Your task to perform on an android device: turn off translation in the chrome app Image 0: 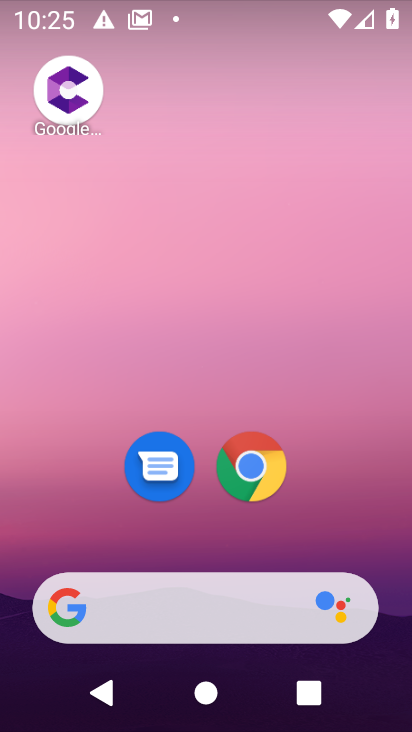
Step 0: drag from (317, 529) to (319, 73)
Your task to perform on an android device: turn off translation in the chrome app Image 1: 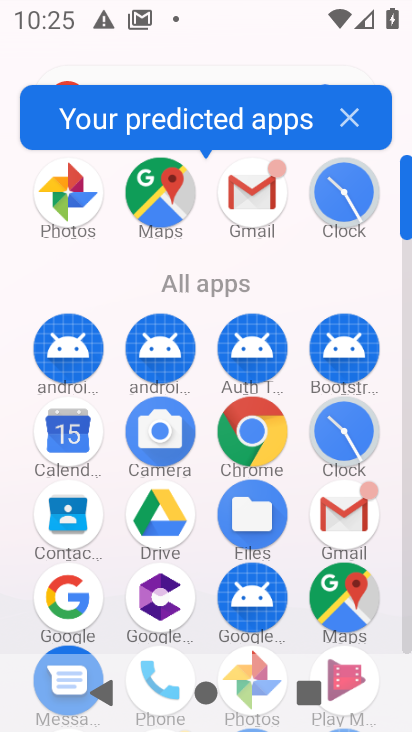
Step 1: click (254, 428)
Your task to perform on an android device: turn off translation in the chrome app Image 2: 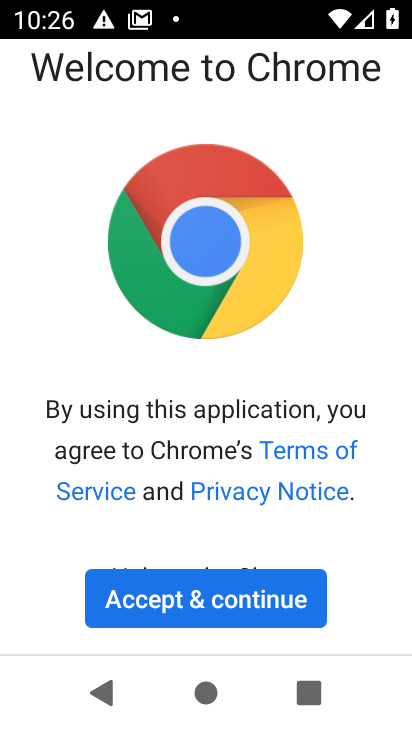
Step 2: click (263, 587)
Your task to perform on an android device: turn off translation in the chrome app Image 3: 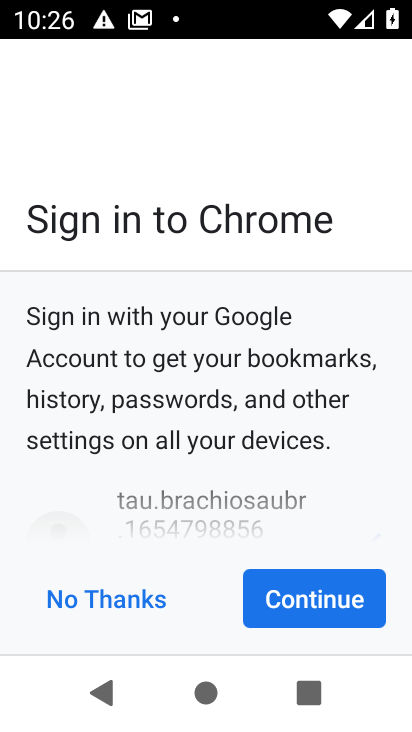
Step 3: click (318, 599)
Your task to perform on an android device: turn off translation in the chrome app Image 4: 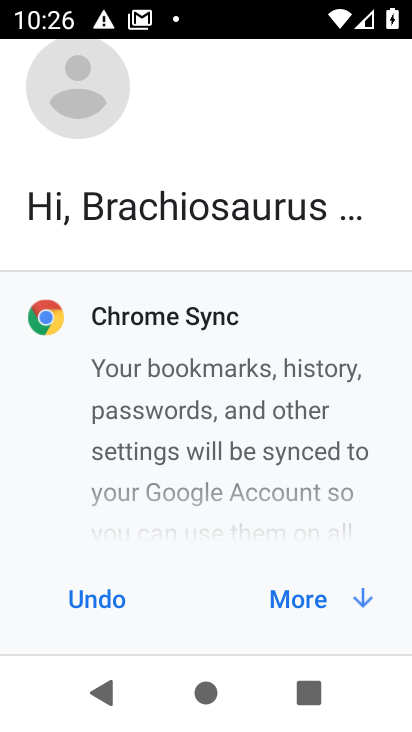
Step 4: click (307, 602)
Your task to perform on an android device: turn off translation in the chrome app Image 5: 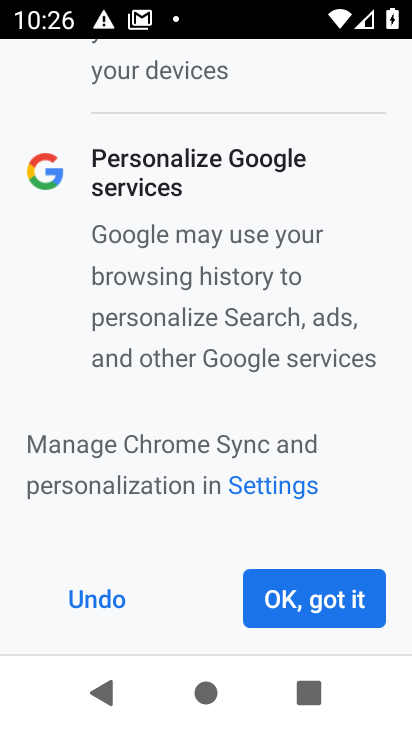
Step 5: click (367, 590)
Your task to perform on an android device: turn off translation in the chrome app Image 6: 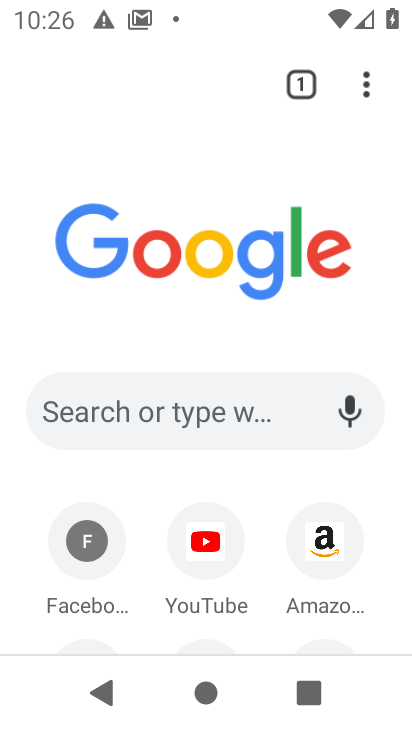
Step 6: drag from (358, 86) to (125, 512)
Your task to perform on an android device: turn off translation in the chrome app Image 7: 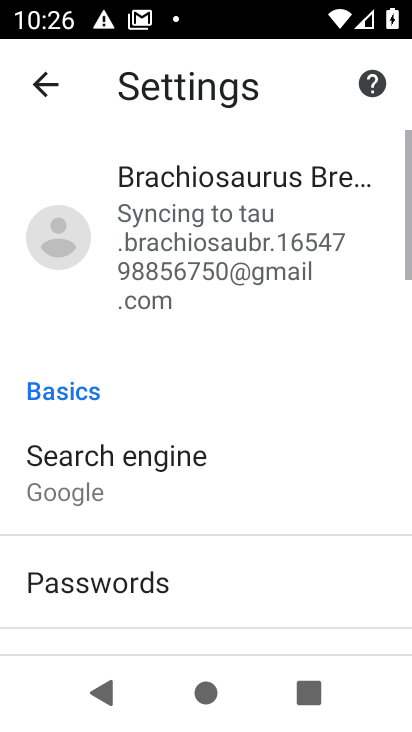
Step 7: drag from (206, 604) to (193, 240)
Your task to perform on an android device: turn off translation in the chrome app Image 8: 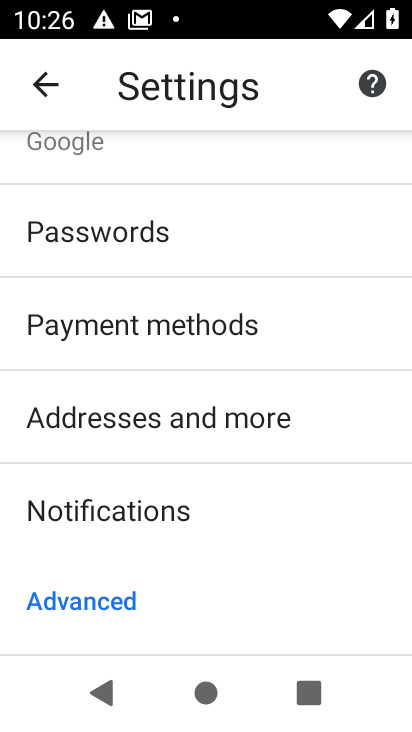
Step 8: drag from (248, 568) to (247, 220)
Your task to perform on an android device: turn off translation in the chrome app Image 9: 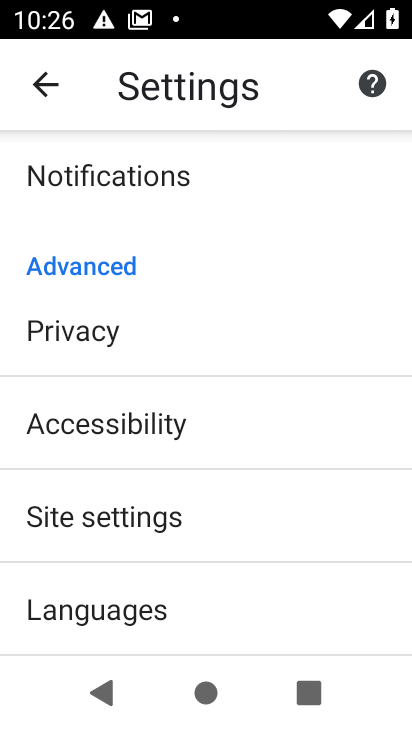
Step 9: click (84, 610)
Your task to perform on an android device: turn off translation in the chrome app Image 10: 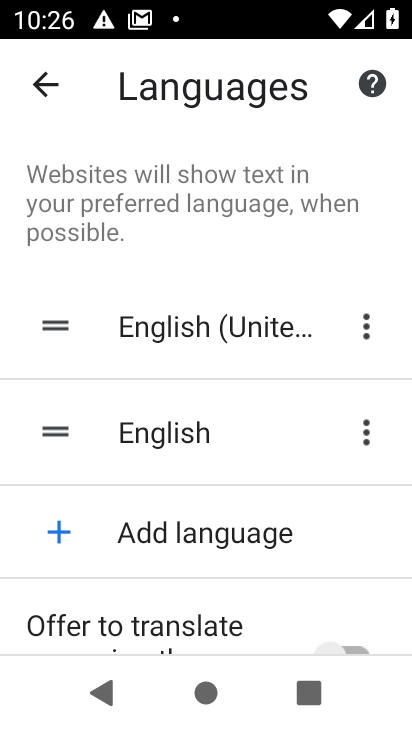
Step 10: task complete